Your task to perform on an android device: toggle data saver in the chrome app Image 0: 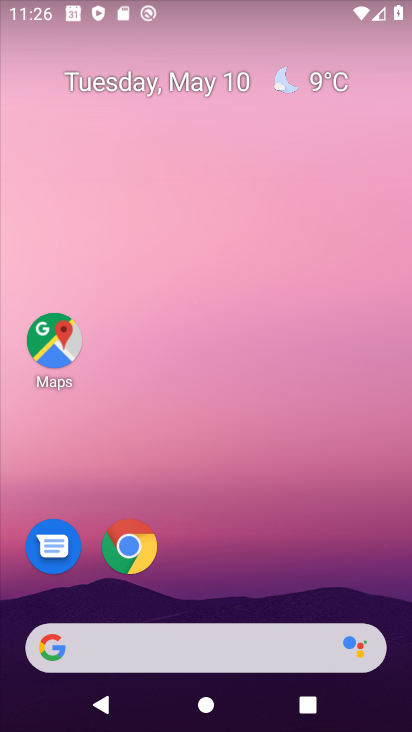
Step 0: click (139, 546)
Your task to perform on an android device: toggle data saver in the chrome app Image 1: 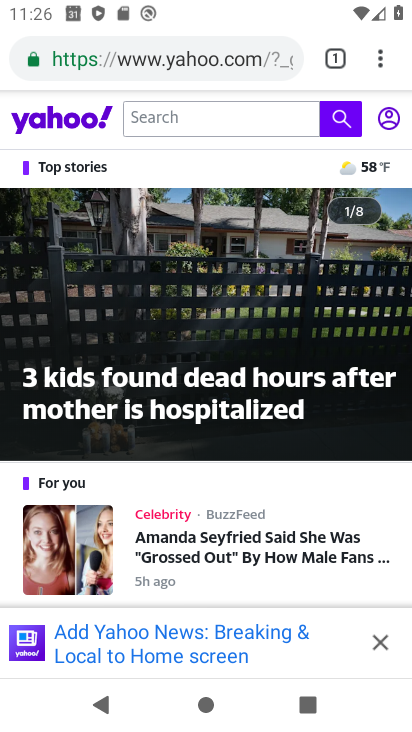
Step 1: drag from (382, 59) to (189, 568)
Your task to perform on an android device: toggle data saver in the chrome app Image 2: 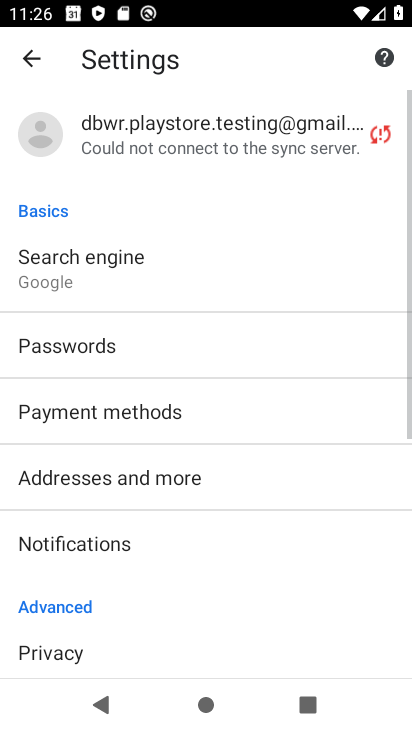
Step 2: drag from (187, 584) to (173, 307)
Your task to perform on an android device: toggle data saver in the chrome app Image 3: 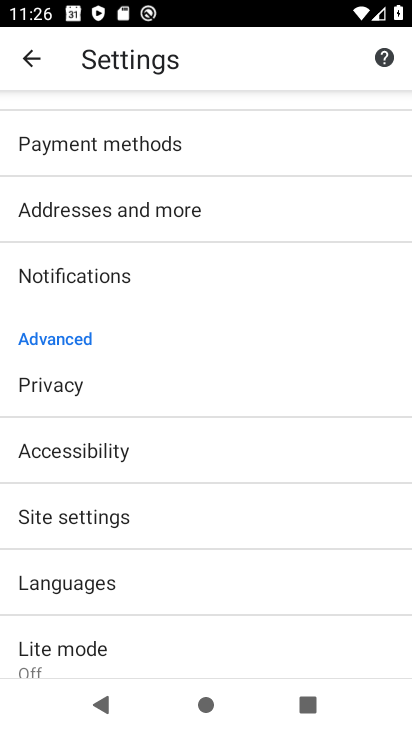
Step 3: click (99, 642)
Your task to perform on an android device: toggle data saver in the chrome app Image 4: 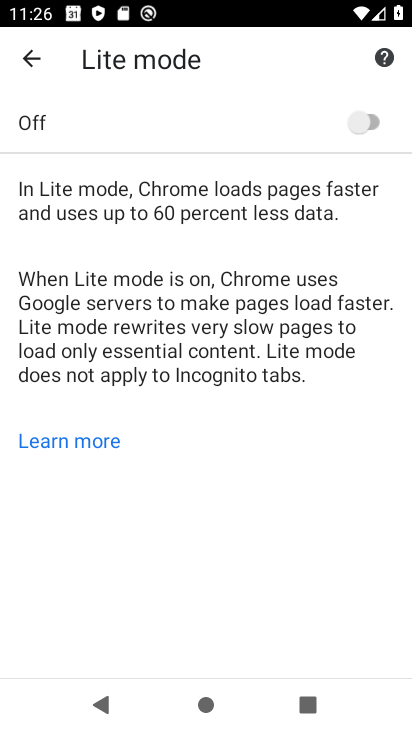
Step 4: click (376, 120)
Your task to perform on an android device: toggle data saver in the chrome app Image 5: 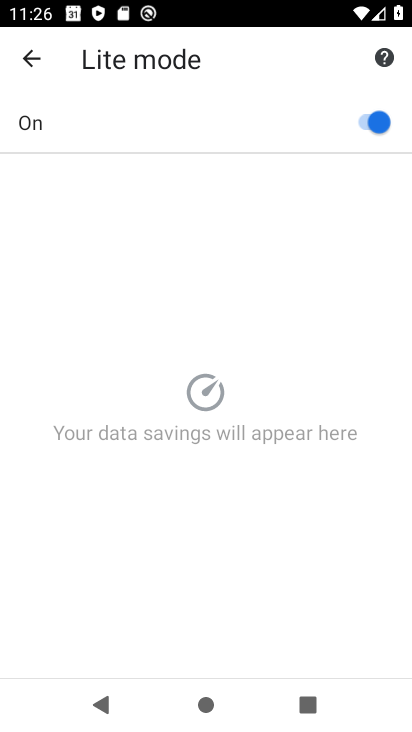
Step 5: task complete